Your task to perform on an android device: change keyboard looks Image 0: 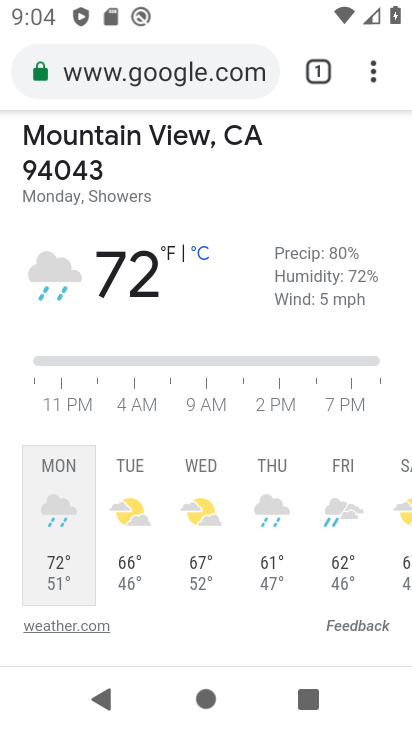
Step 0: press home button
Your task to perform on an android device: change keyboard looks Image 1: 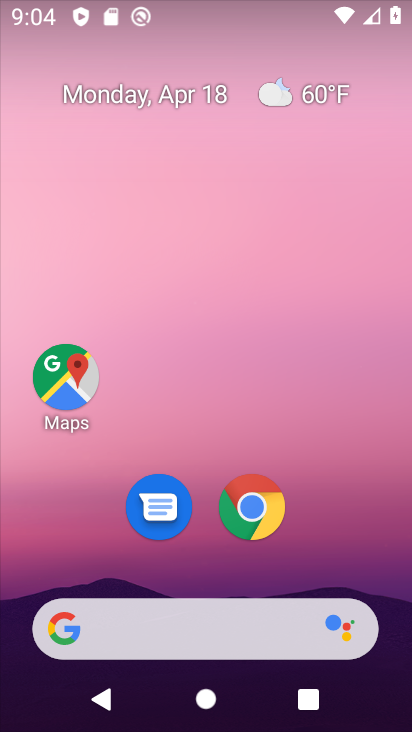
Step 1: drag from (315, 567) to (310, 182)
Your task to perform on an android device: change keyboard looks Image 2: 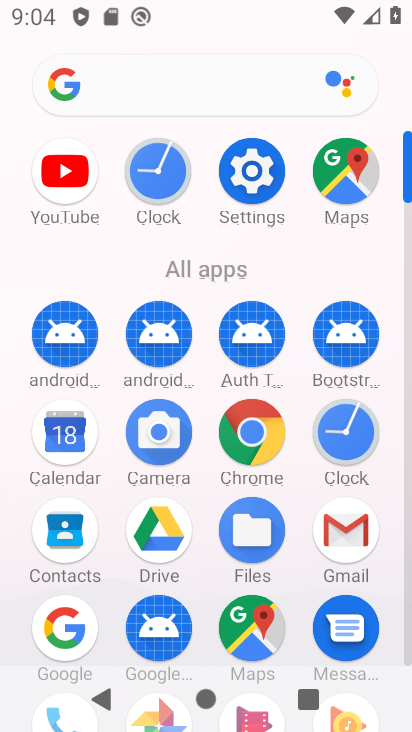
Step 2: click (251, 188)
Your task to perform on an android device: change keyboard looks Image 3: 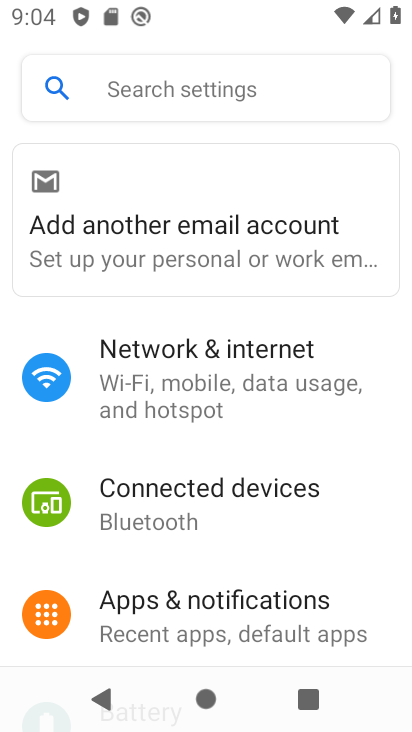
Step 3: drag from (247, 542) to (291, 241)
Your task to perform on an android device: change keyboard looks Image 4: 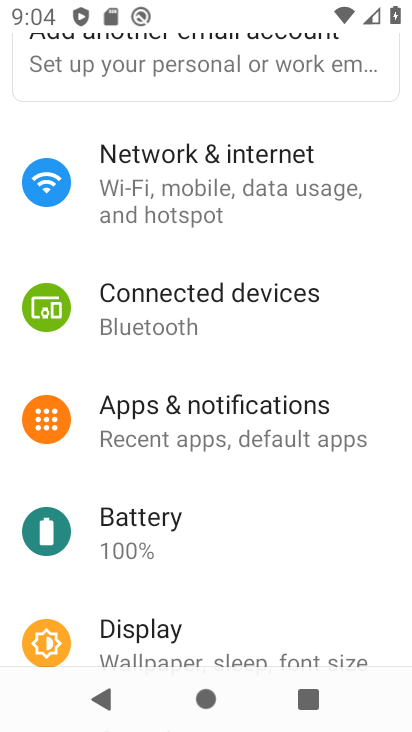
Step 4: drag from (238, 590) to (301, 250)
Your task to perform on an android device: change keyboard looks Image 5: 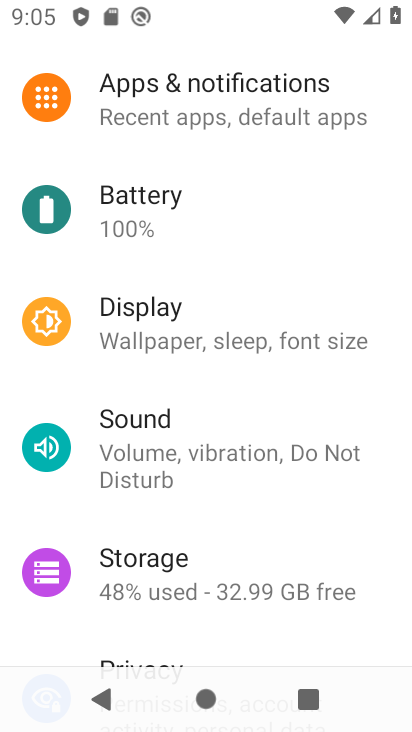
Step 5: drag from (270, 613) to (268, 336)
Your task to perform on an android device: change keyboard looks Image 6: 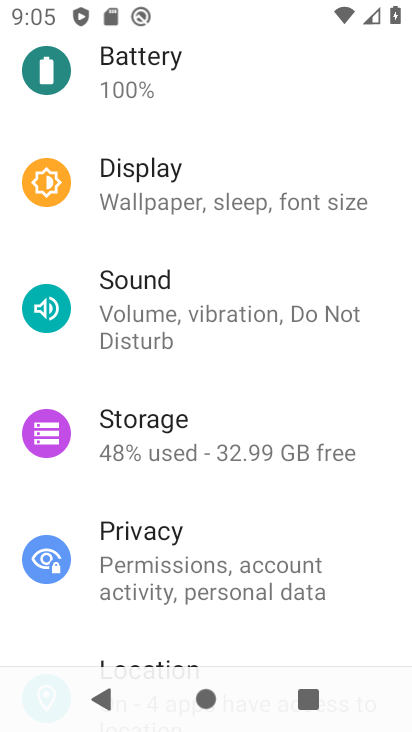
Step 6: drag from (237, 599) to (256, 368)
Your task to perform on an android device: change keyboard looks Image 7: 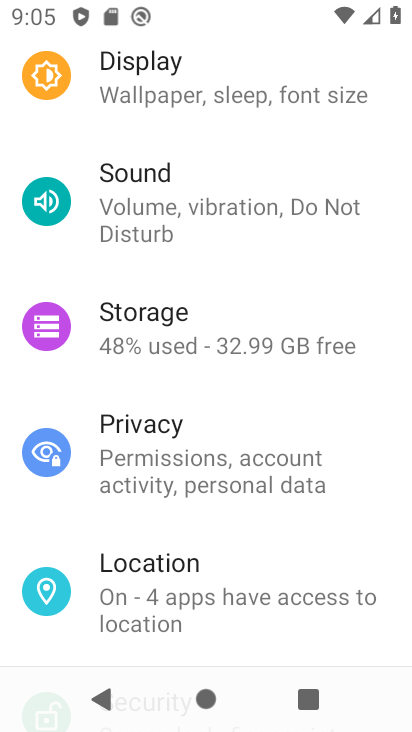
Step 7: drag from (260, 598) to (268, 314)
Your task to perform on an android device: change keyboard looks Image 8: 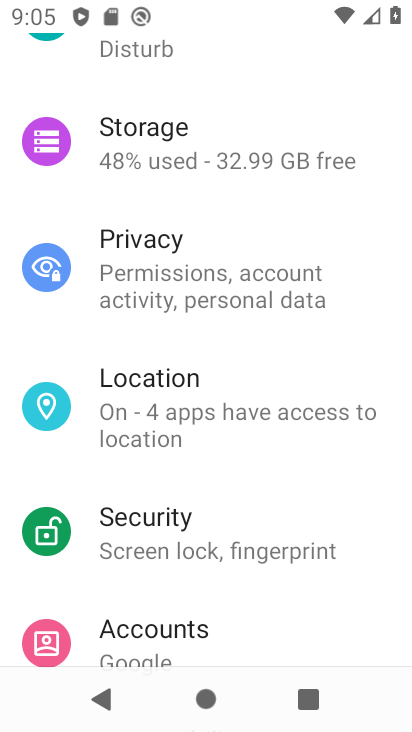
Step 8: drag from (243, 634) to (270, 362)
Your task to perform on an android device: change keyboard looks Image 9: 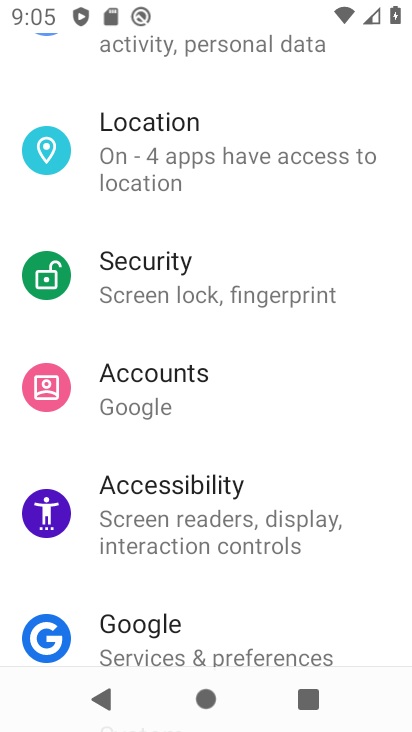
Step 9: drag from (240, 637) to (265, 301)
Your task to perform on an android device: change keyboard looks Image 10: 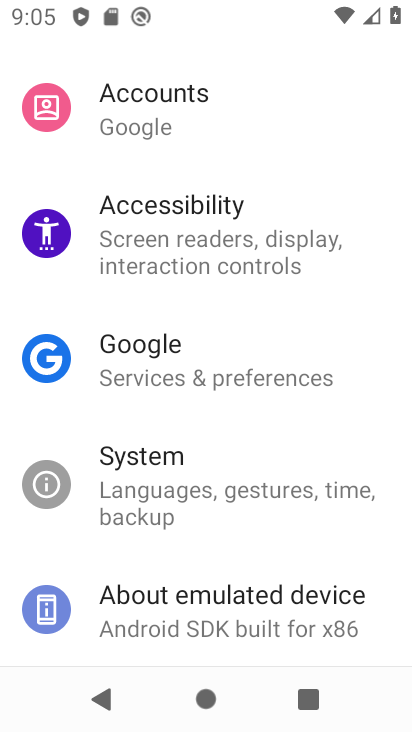
Step 10: click (216, 502)
Your task to perform on an android device: change keyboard looks Image 11: 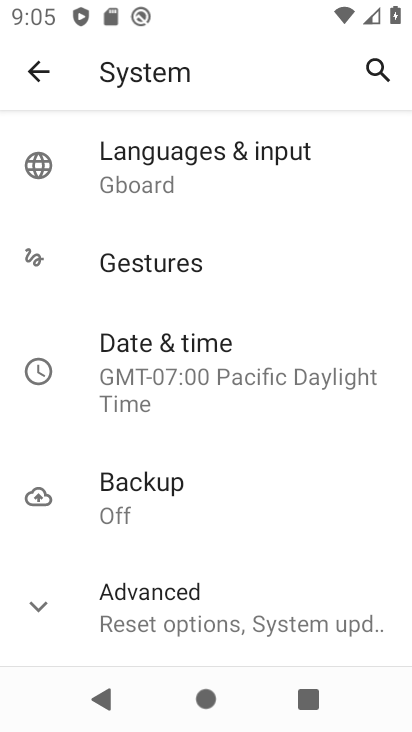
Step 11: click (270, 181)
Your task to perform on an android device: change keyboard looks Image 12: 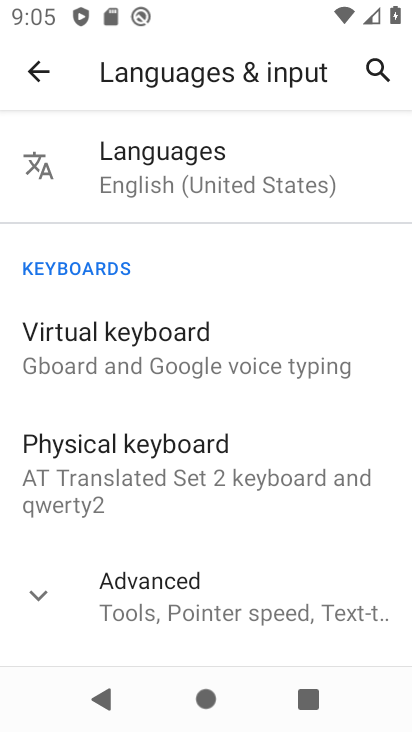
Step 12: click (261, 377)
Your task to perform on an android device: change keyboard looks Image 13: 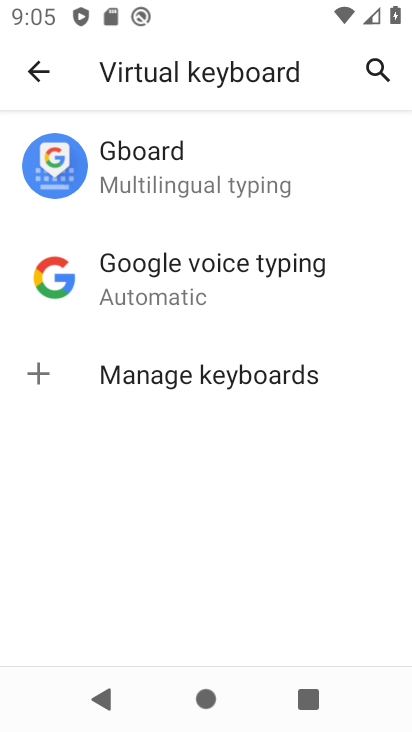
Step 13: click (194, 180)
Your task to perform on an android device: change keyboard looks Image 14: 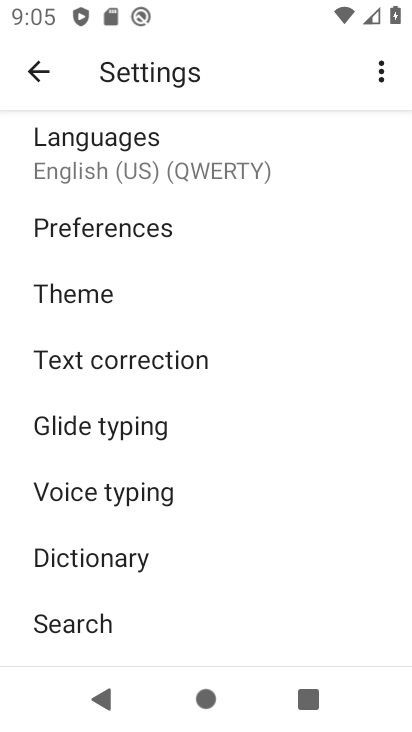
Step 14: click (115, 289)
Your task to perform on an android device: change keyboard looks Image 15: 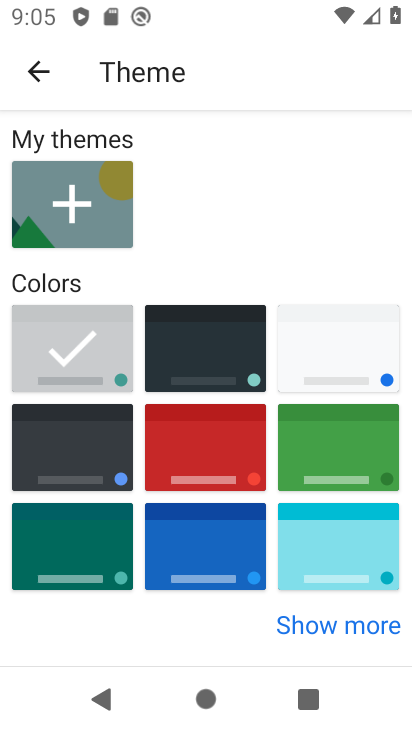
Step 15: click (215, 357)
Your task to perform on an android device: change keyboard looks Image 16: 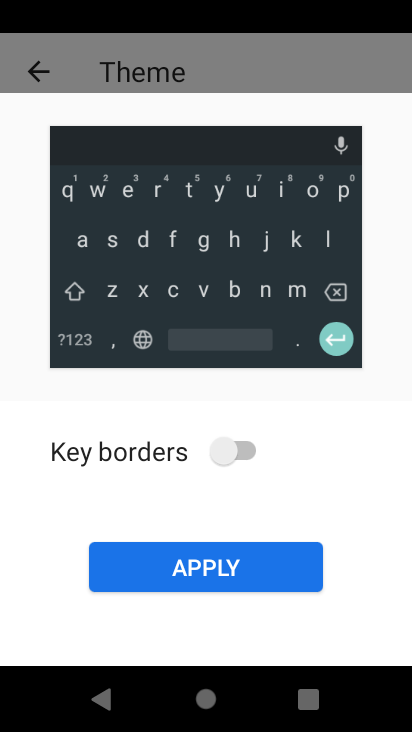
Step 16: click (173, 585)
Your task to perform on an android device: change keyboard looks Image 17: 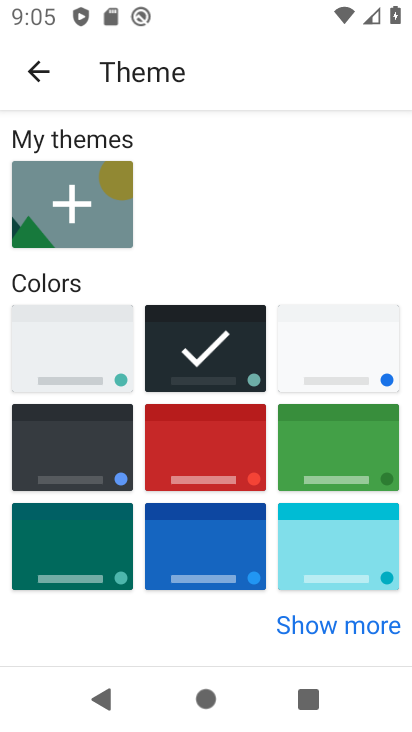
Step 17: task complete